Your task to perform on an android device: toggle javascript in the chrome app Image 0: 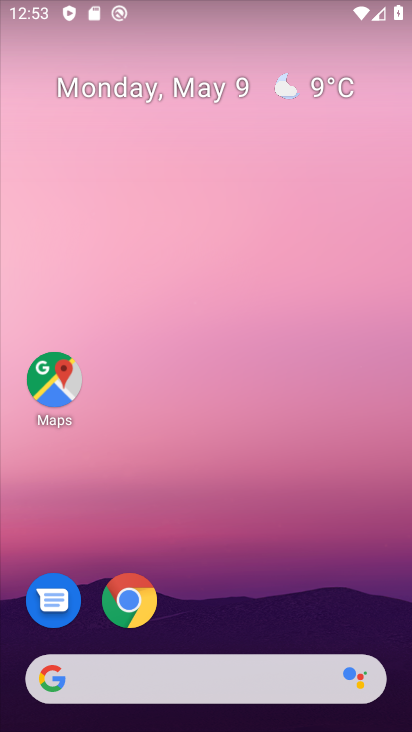
Step 0: click (156, 605)
Your task to perform on an android device: toggle javascript in the chrome app Image 1: 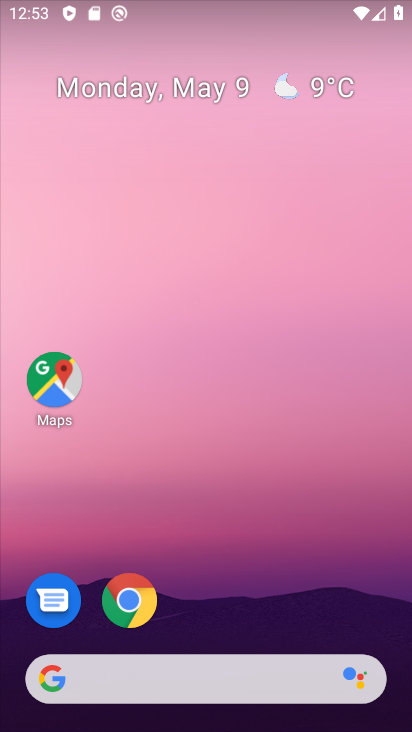
Step 1: click (156, 605)
Your task to perform on an android device: toggle javascript in the chrome app Image 2: 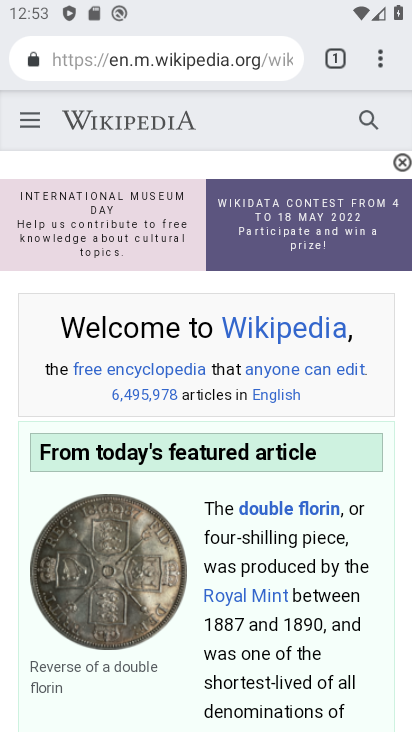
Step 2: drag from (383, 70) to (291, 635)
Your task to perform on an android device: toggle javascript in the chrome app Image 3: 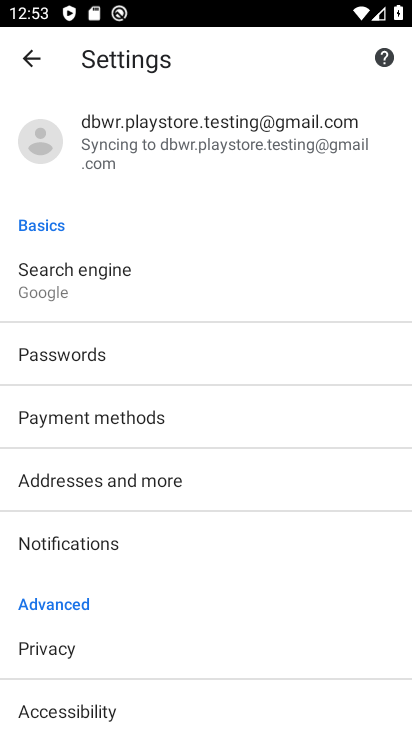
Step 3: drag from (291, 635) to (356, 405)
Your task to perform on an android device: toggle javascript in the chrome app Image 4: 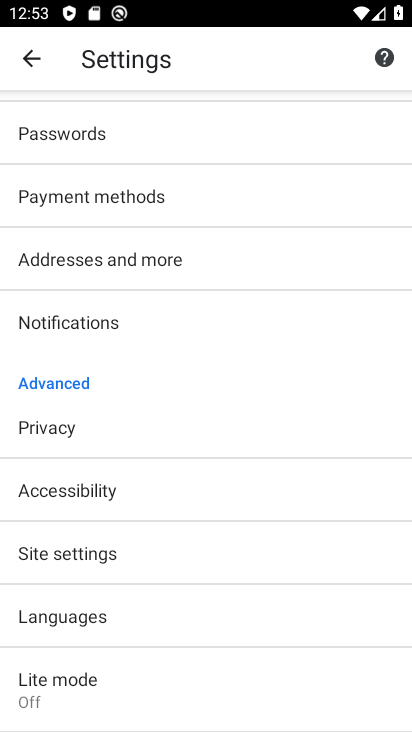
Step 4: click (217, 521)
Your task to perform on an android device: toggle javascript in the chrome app Image 5: 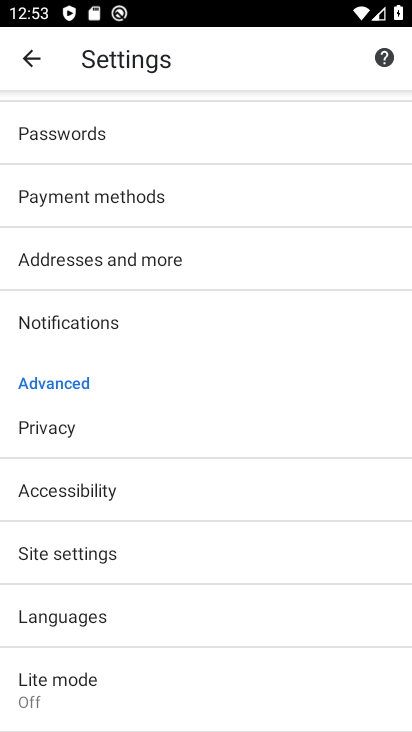
Step 5: click (211, 544)
Your task to perform on an android device: toggle javascript in the chrome app Image 6: 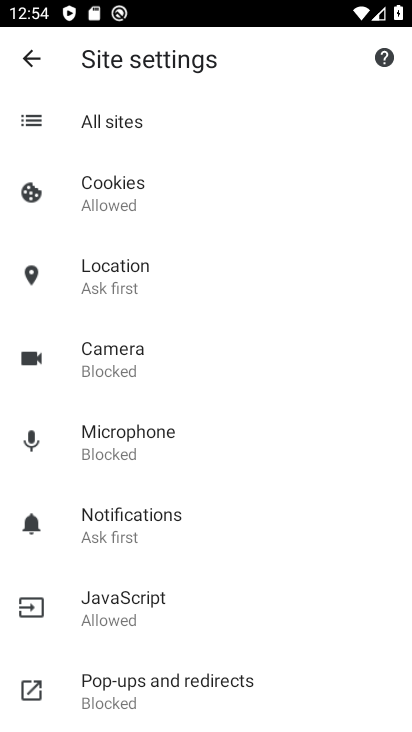
Step 6: click (201, 595)
Your task to perform on an android device: toggle javascript in the chrome app Image 7: 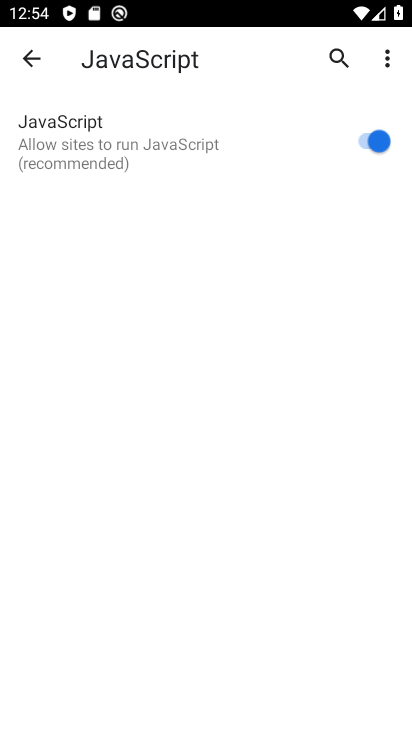
Step 7: click (365, 134)
Your task to perform on an android device: toggle javascript in the chrome app Image 8: 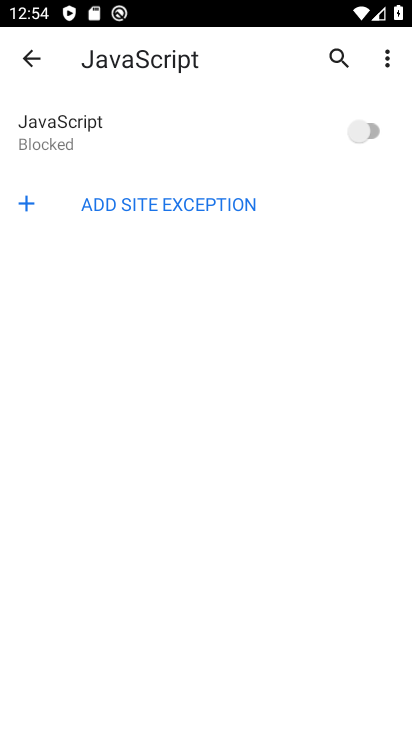
Step 8: task complete